Your task to perform on an android device: check android version Image 0: 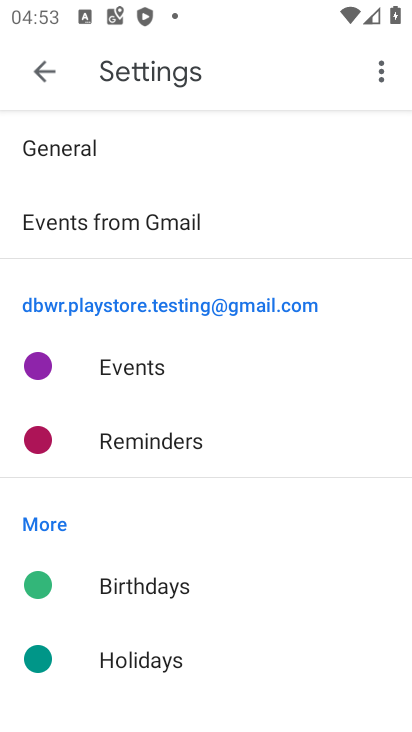
Step 0: press home button
Your task to perform on an android device: check android version Image 1: 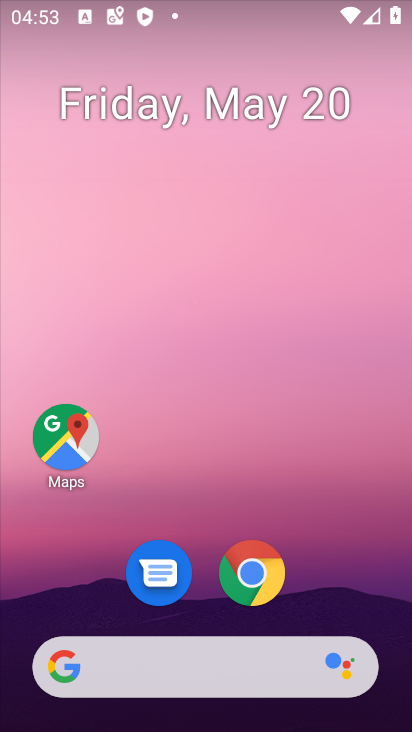
Step 1: drag from (388, 621) to (294, 65)
Your task to perform on an android device: check android version Image 2: 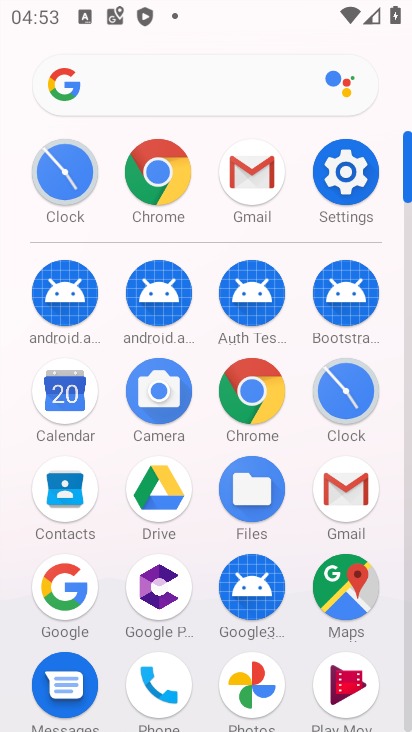
Step 2: click (409, 696)
Your task to perform on an android device: check android version Image 3: 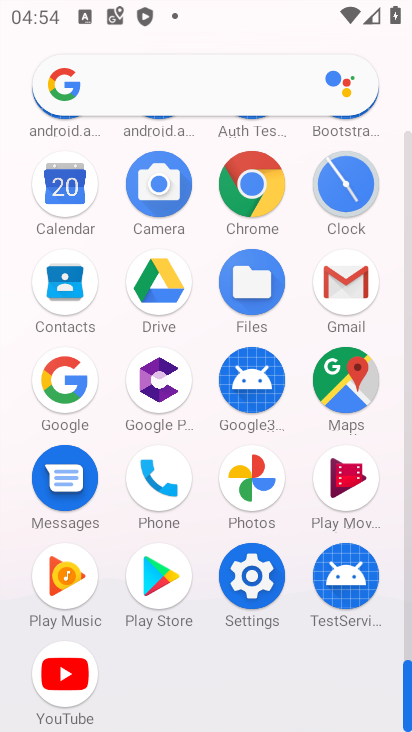
Step 3: click (254, 576)
Your task to perform on an android device: check android version Image 4: 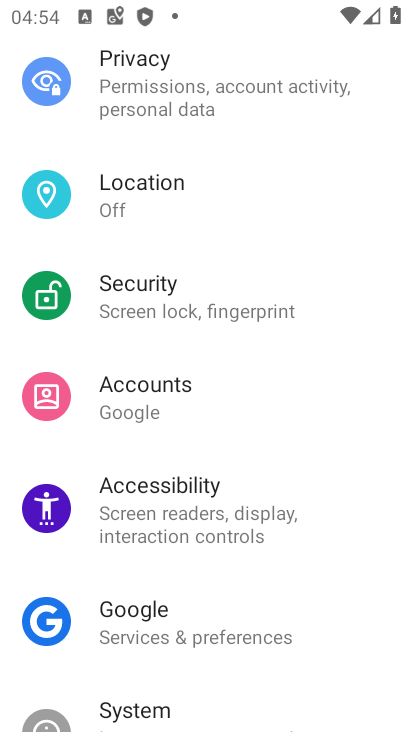
Step 4: drag from (357, 687) to (284, 79)
Your task to perform on an android device: check android version Image 5: 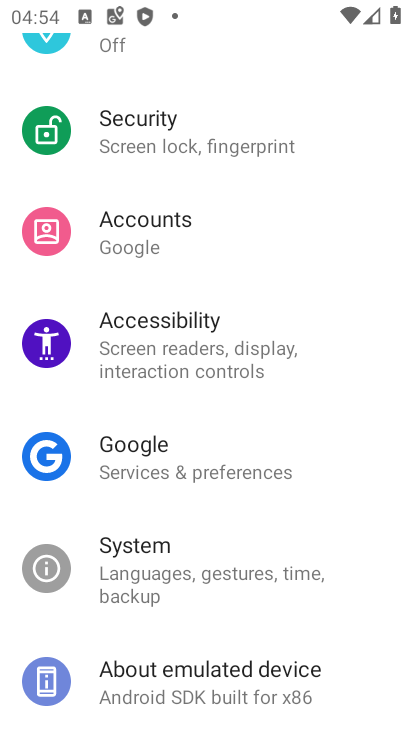
Step 5: click (159, 665)
Your task to perform on an android device: check android version Image 6: 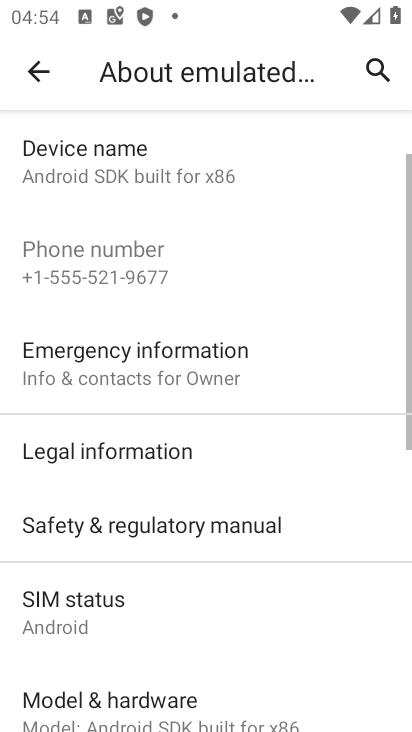
Step 6: drag from (291, 694) to (278, 188)
Your task to perform on an android device: check android version Image 7: 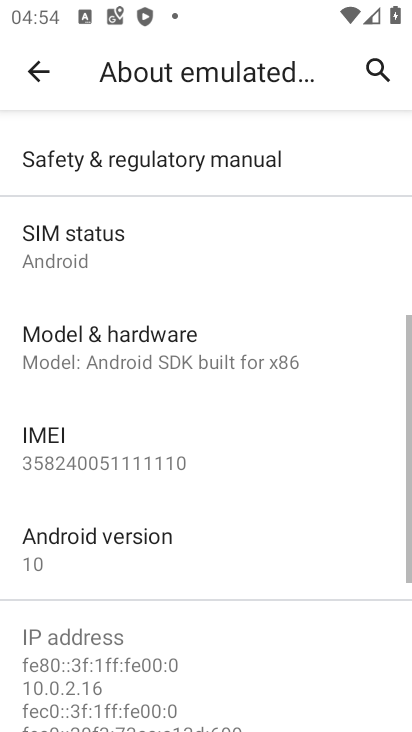
Step 7: click (65, 544)
Your task to perform on an android device: check android version Image 8: 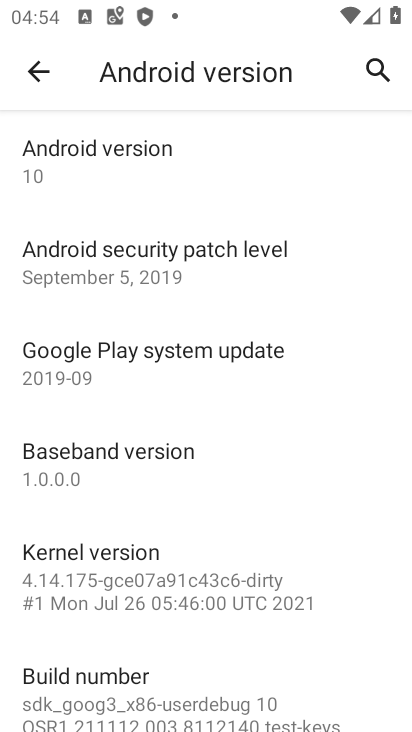
Step 8: task complete